Your task to perform on an android device: Go to Maps Image 0: 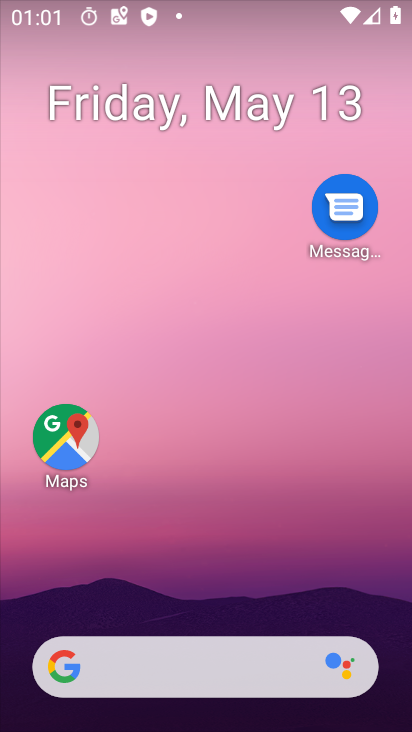
Step 0: click (69, 429)
Your task to perform on an android device: Go to Maps Image 1: 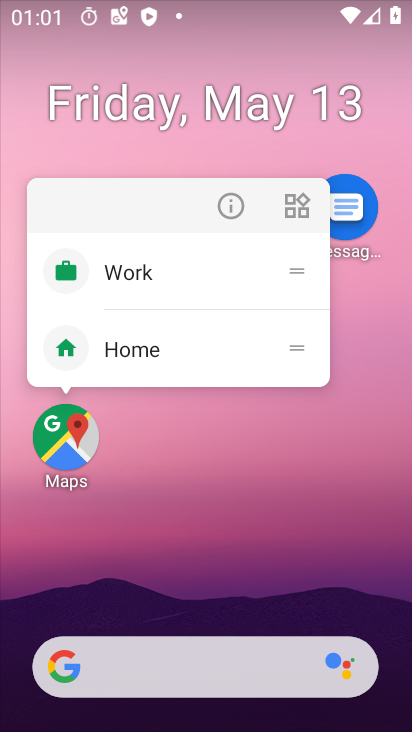
Step 1: click (67, 460)
Your task to perform on an android device: Go to Maps Image 2: 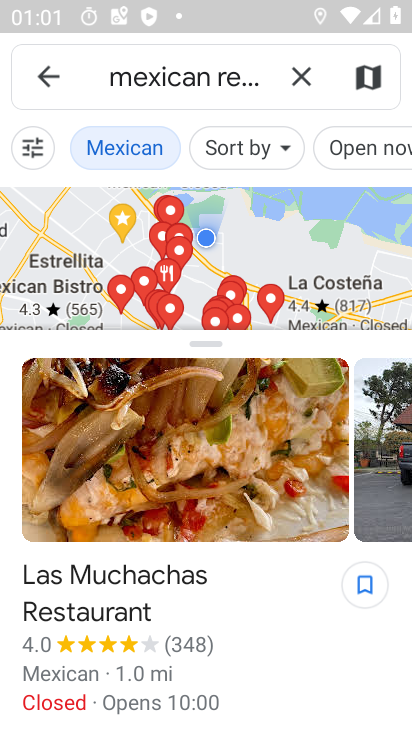
Step 2: task complete